Your task to perform on an android device: toggle data saver in the chrome app Image 0: 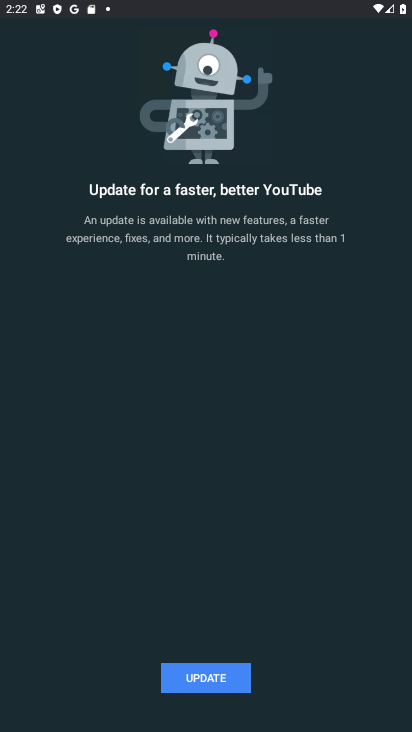
Step 0: press back button
Your task to perform on an android device: toggle data saver in the chrome app Image 1: 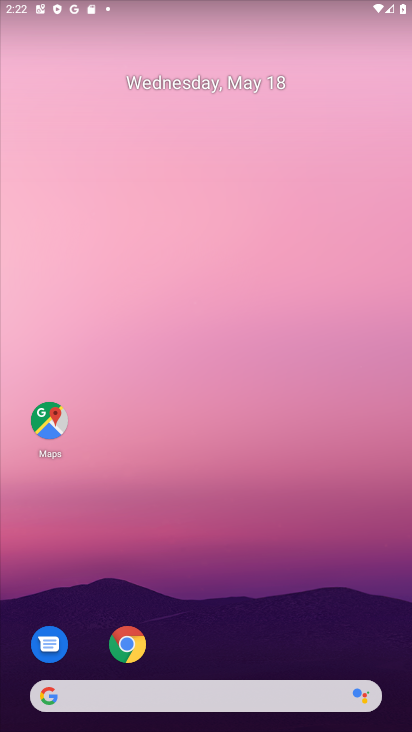
Step 1: click (129, 644)
Your task to perform on an android device: toggle data saver in the chrome app Image 2: 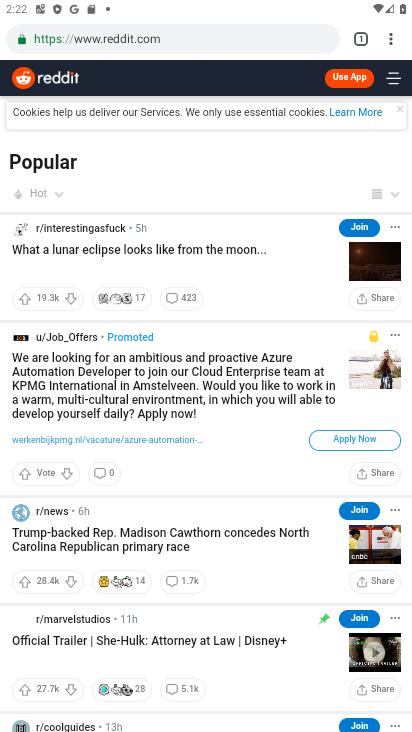
Step 2: click (392, 36)
Your task to perform on an android device: toggle data saver in the chrome app Image 3: 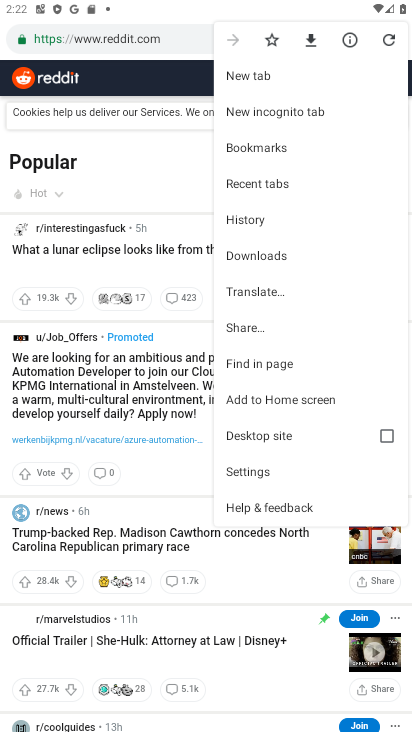
Step 3: click (256, 472)
Your task to perform on an android device: toggle data saver in the chrome app Image 4: 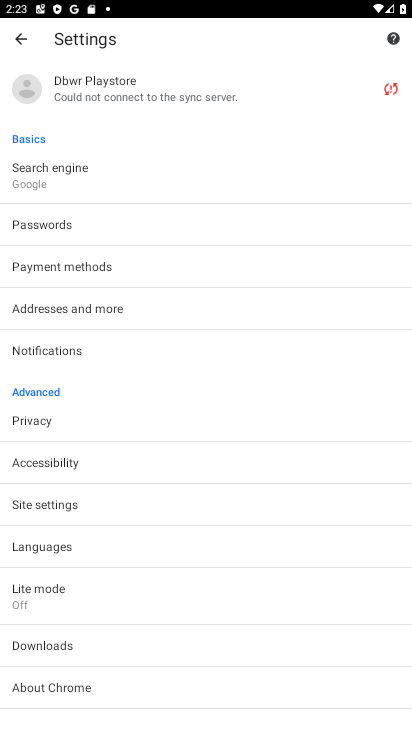
Step 4: click (47, 588)
Your task to perform on an android device: toggle data saver in the chrome app Image 5: 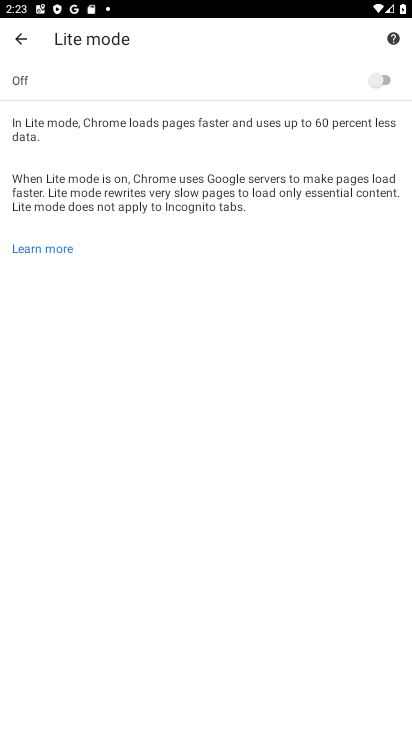
Step 5: click (379, 83)
Your task to perform on an android device: toggle data saver in the chrome app Image 6: 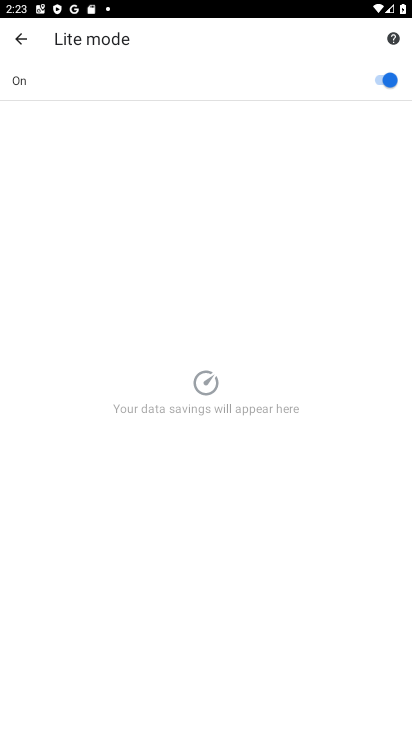
Step 6: task complete